Your task to perform on an android device: Search for sushi restaurants on Maps Image 0: 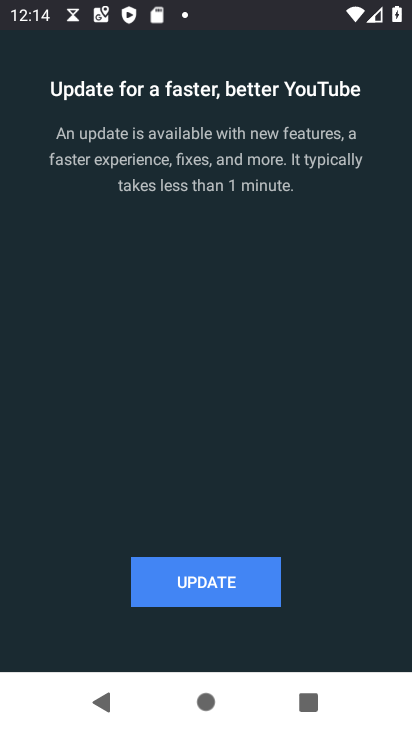
Step 0: press home button
Your task to perform on an android device: Search for sushi restaurants on Maps Image 1: 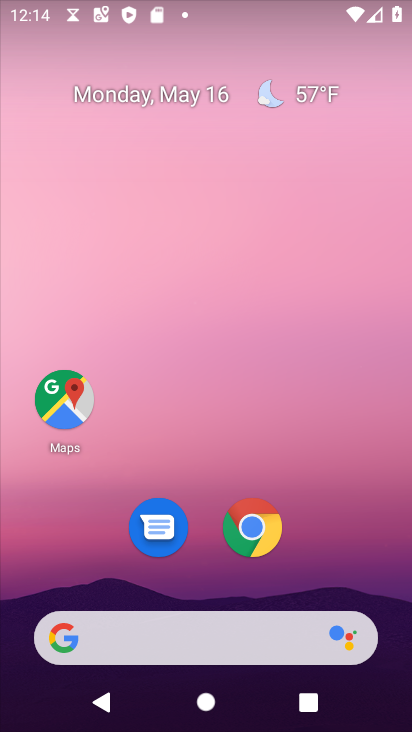
Step 1: click (69, 390)
Your task to perform on an android device: Search for sushi restaurants on Maps Image 2: 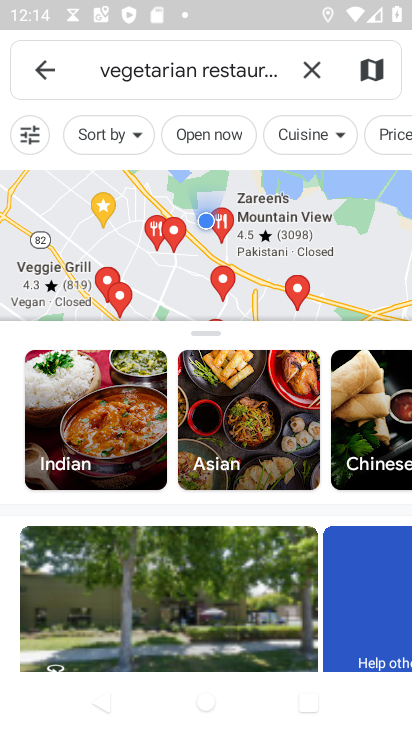
Step 2: click (310, 65)
Your task to perform on an android device: Search for sushi restaurants on Maps Image 3: 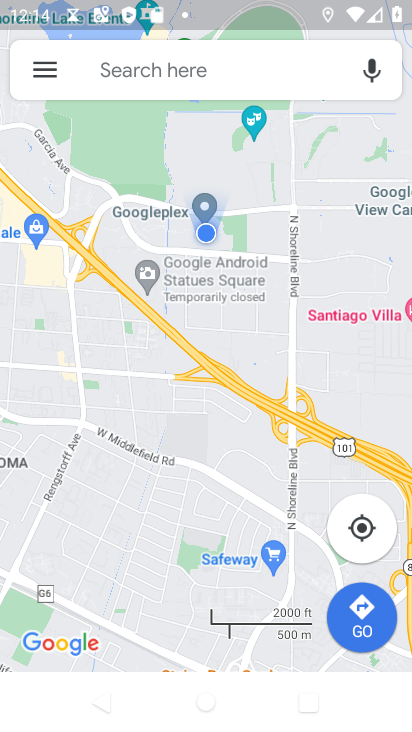
Step 3: click (174, 81)
Your task to perform on an android device: Search for sushi restaurants on Maps Image 4: 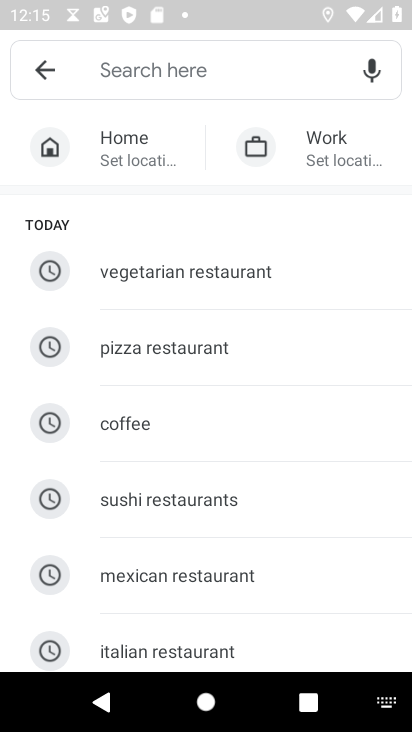
Step 4: type "sushi restaurants"
Your task to perform on an android device: Search for sushi restaurants on Maps Image 5: 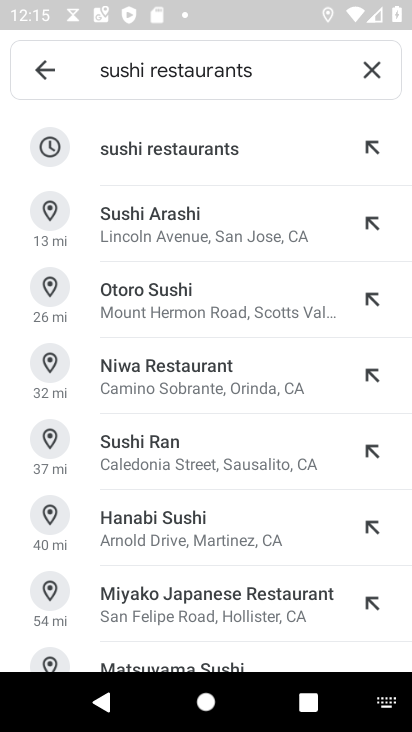
Step 5: click (195, 147)
Your task to perform on an android device: Search for sushi restaurants on Maps Image 6: 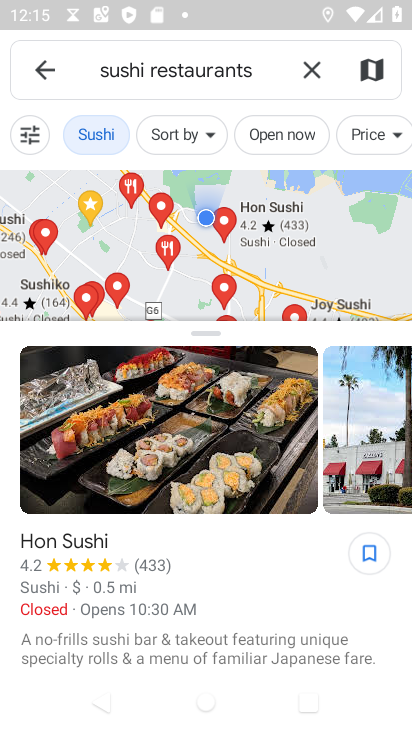
Step 6: task complete